Your task to perform on an android device: Go to settings Image 0: 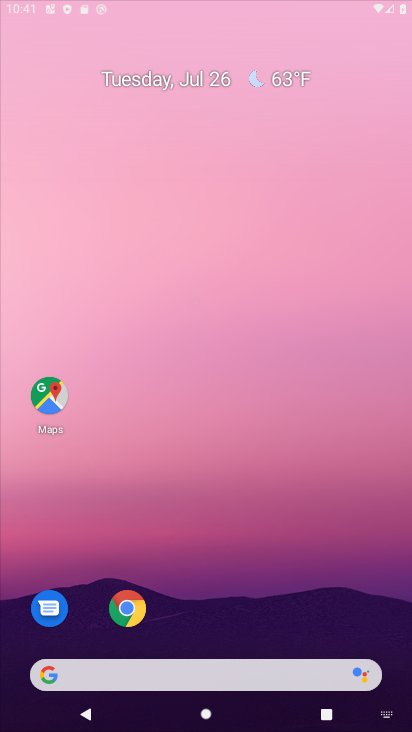
Step 0: press home button
Your task to perform on an android device: Go to settings Image 1: 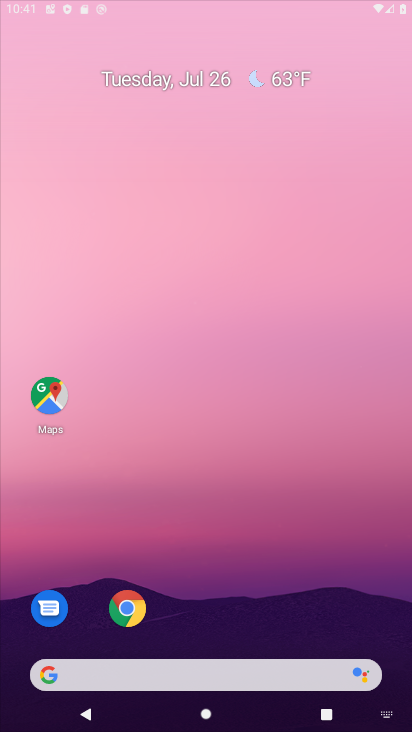
Step 1: click (245, 65)
Your task to perform on an android device: Go to settings Image 2: 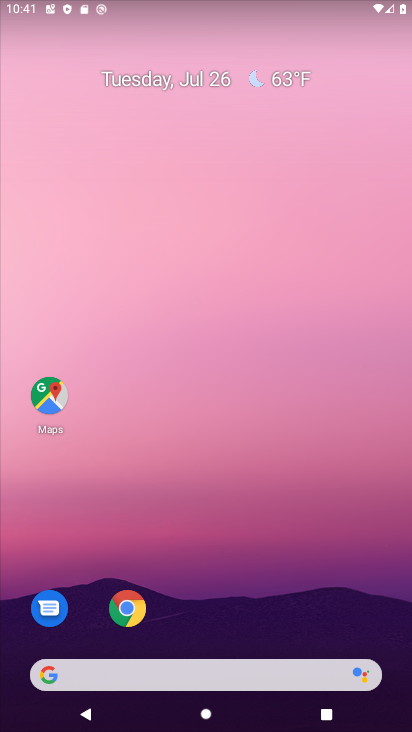
Step 2: drag from (244, 590) to (280, 102)
Your task to perform on an android device: Go to settings Image 3: 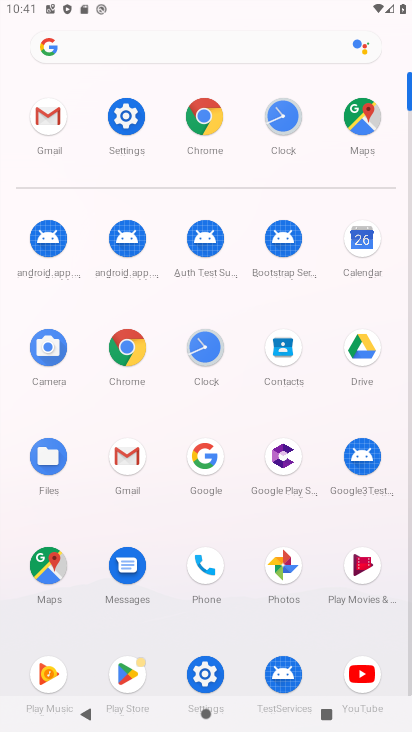
Step 3: click (128, 114)
Your task to perform on an android device: Go to settings Image 4: 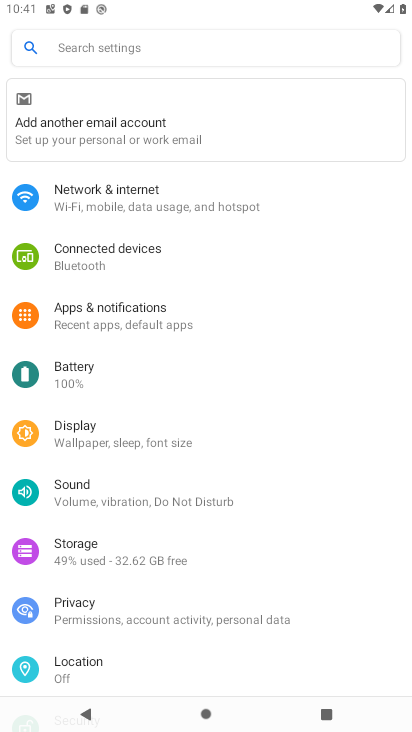
Step 4: task complete